Your task to perform on an android device: Add "usb-c to usb-b" to the cart on newegg.com, then select checkout. Image 0: 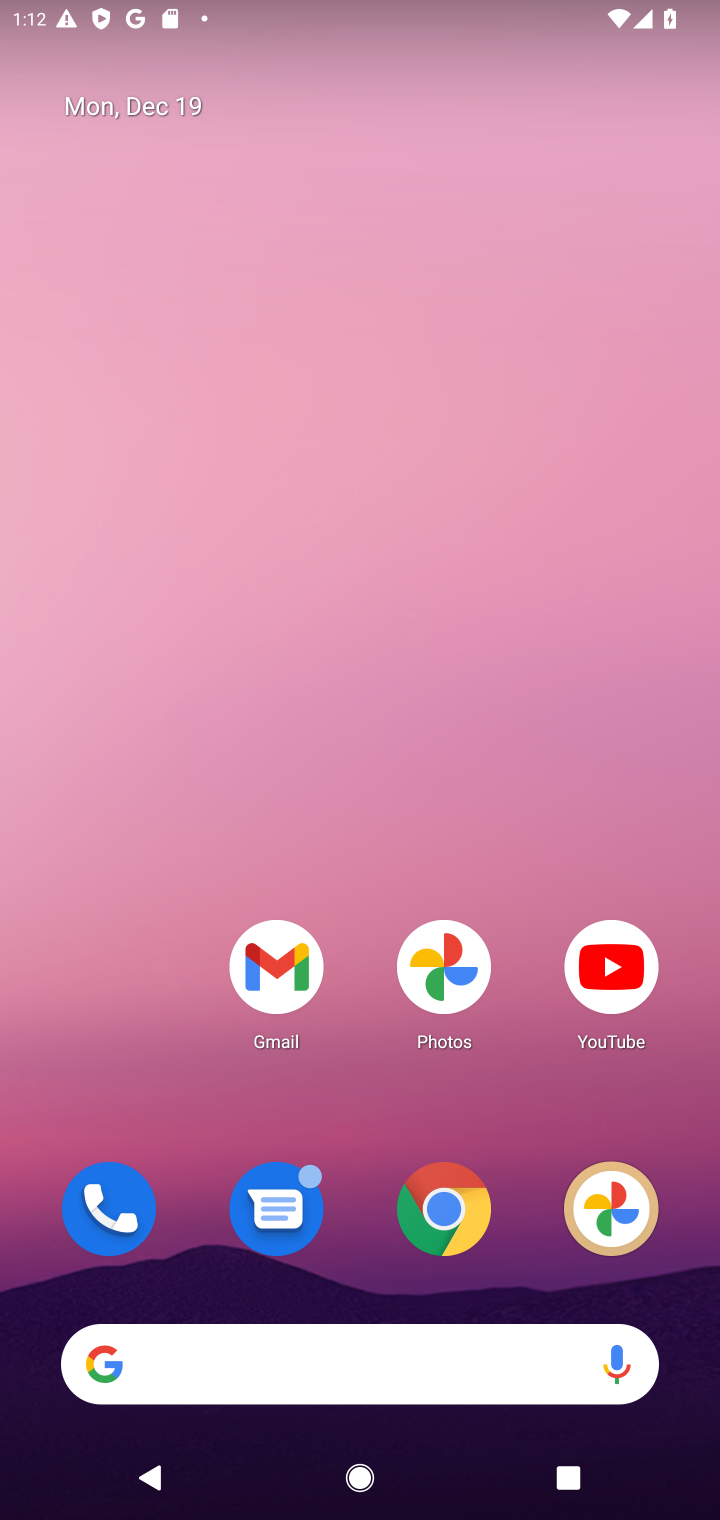
Step 0: task complete